Your task to perform on an android device: set an alarm Image 0: 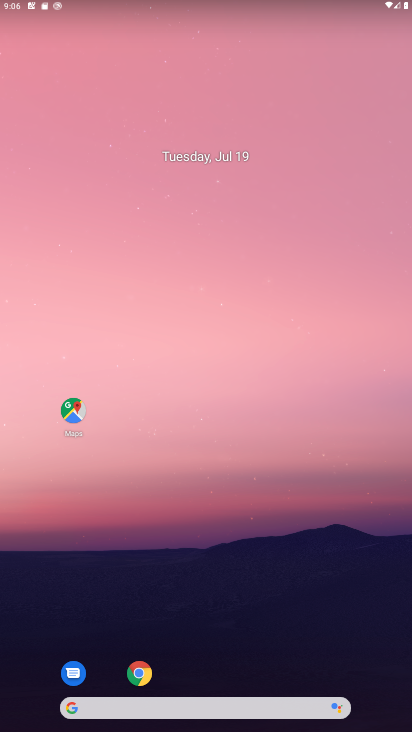
Step 0: press home button
Your task to perform on an android device: set an alarm Image 1: 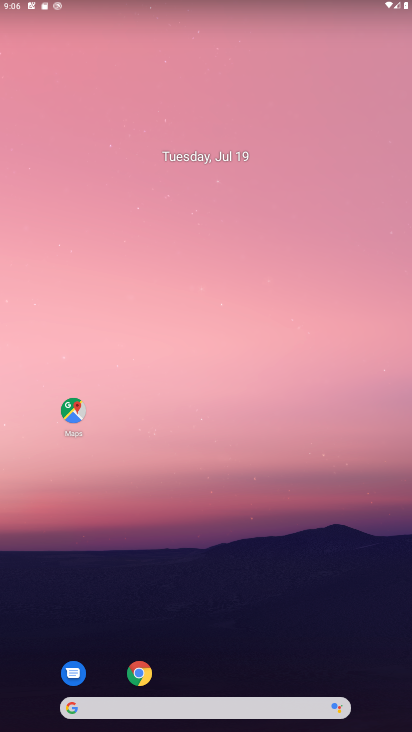
Step 1: drag from (374, 672) to (328, 163)
Your task to perform on an android device: set an alarm Image 2: 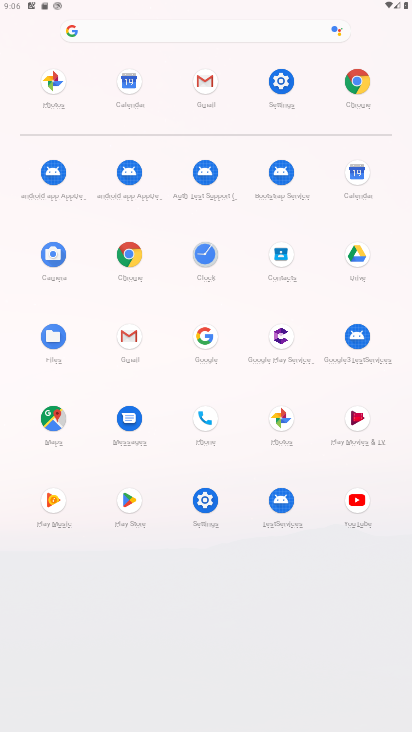
Step 2: click (206, 254)
Your task to perform on an android device: set an alarm Image 3: 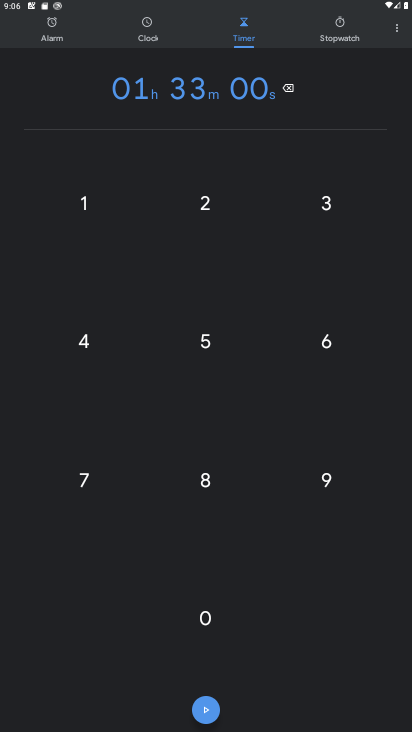
Step 3: click (58, 32)
Your task to perform on an android device: set an alarm Image 4: 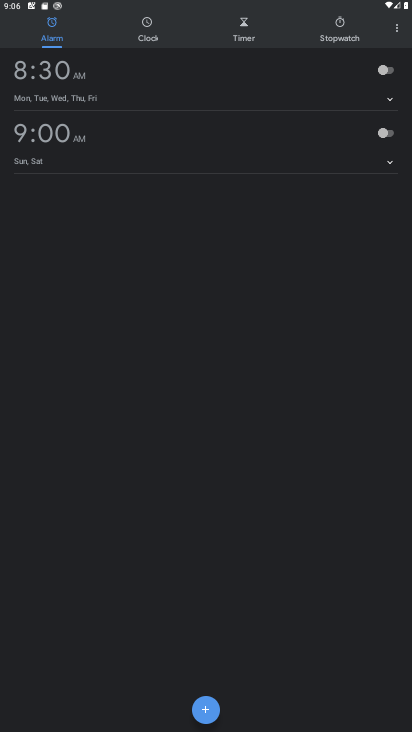
Step 4: click (55, 82)
Your task to perform on an android device: set an alarm Image 5: 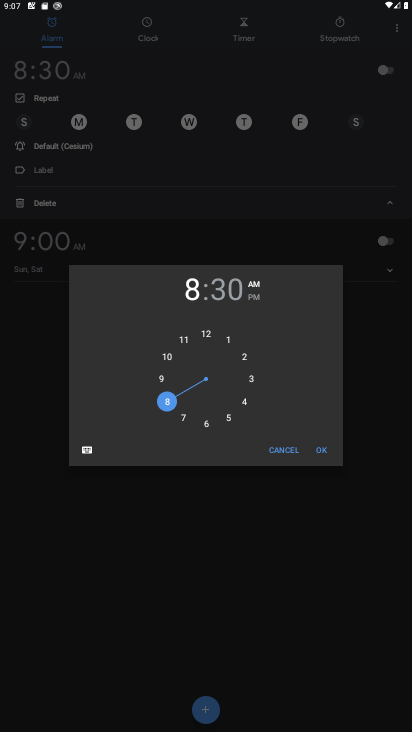
Step 5: click (206, 423)
Your task to perform on an android device: set an alarm Image 6: 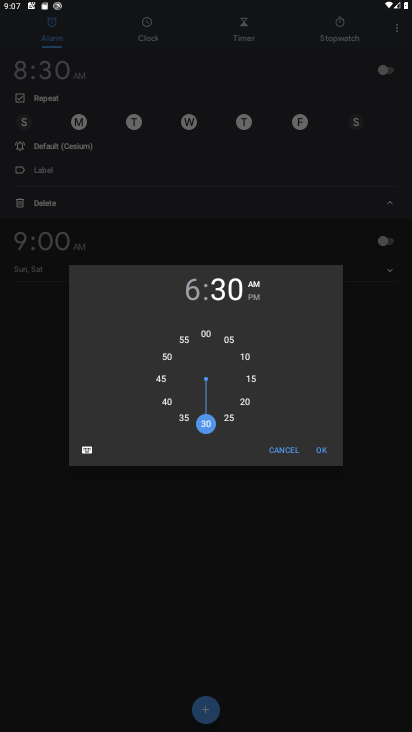
Step 6: click (253, 377)
Your task to perform on an android device: set an alarm Image 7: 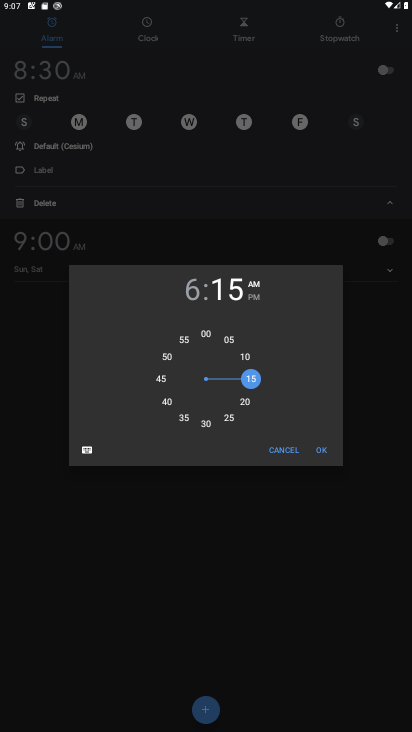
Step 7: click (326, 453)
Your task to perform on an android device: set an alarm Image 8: 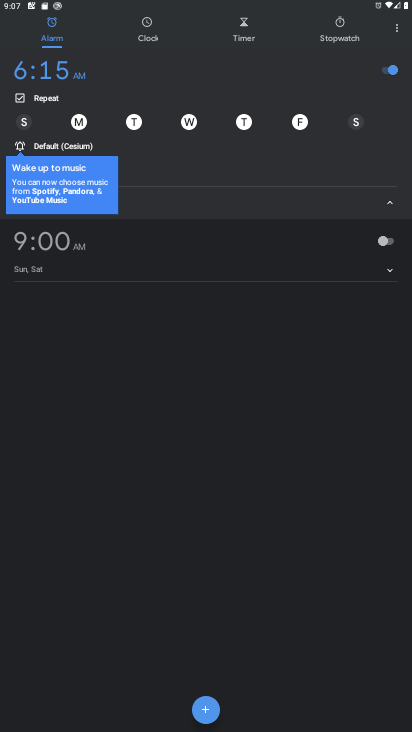
Step 8: click (357, 123)
Your task to perform on an android device: set an alarm Image 9: 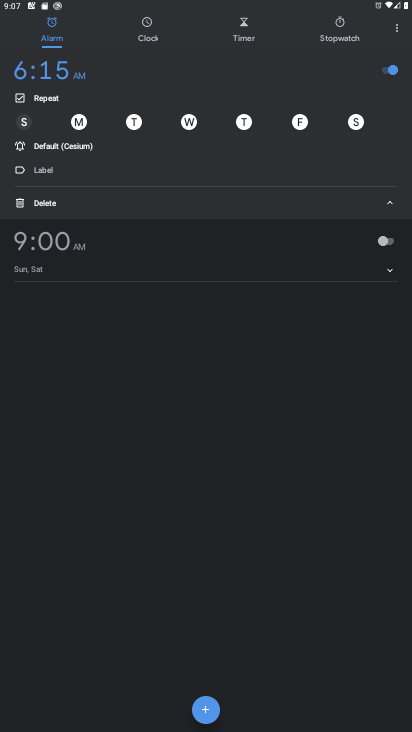
Step 9: click (390, 205)
Your task to perform on an android device: set an alarm Image 10: 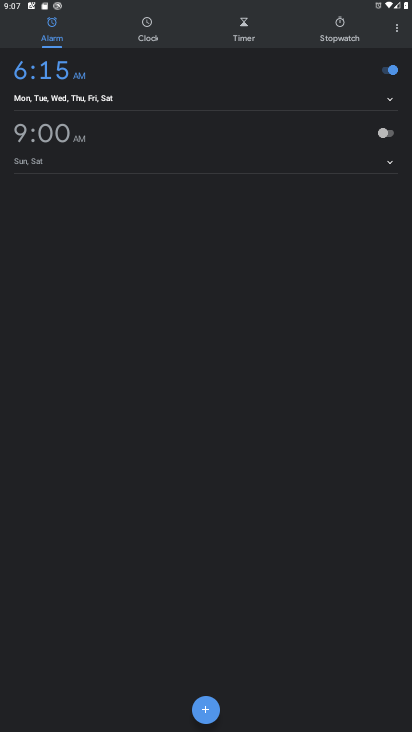
Step 10: task complete